Your task to perform on an android device: View the shopping cart on amazon. Add "beats solo 3" to the cart on amazon, then select checkout. Image 0: 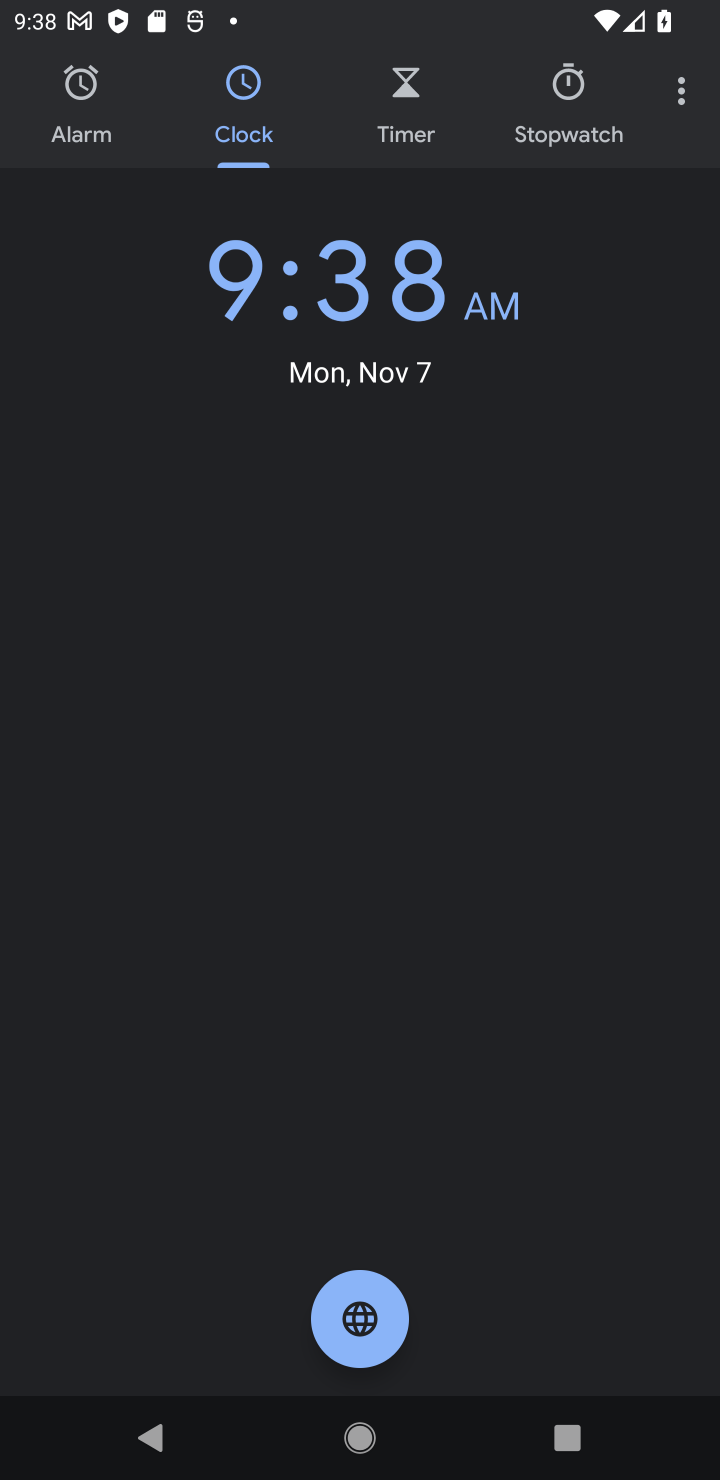
Step 0: press home button
Your task to perform on an android device: View the shopping cart on amazon. Add "beats solo 3" to the cart on amazon, then select checkout. Image 1: 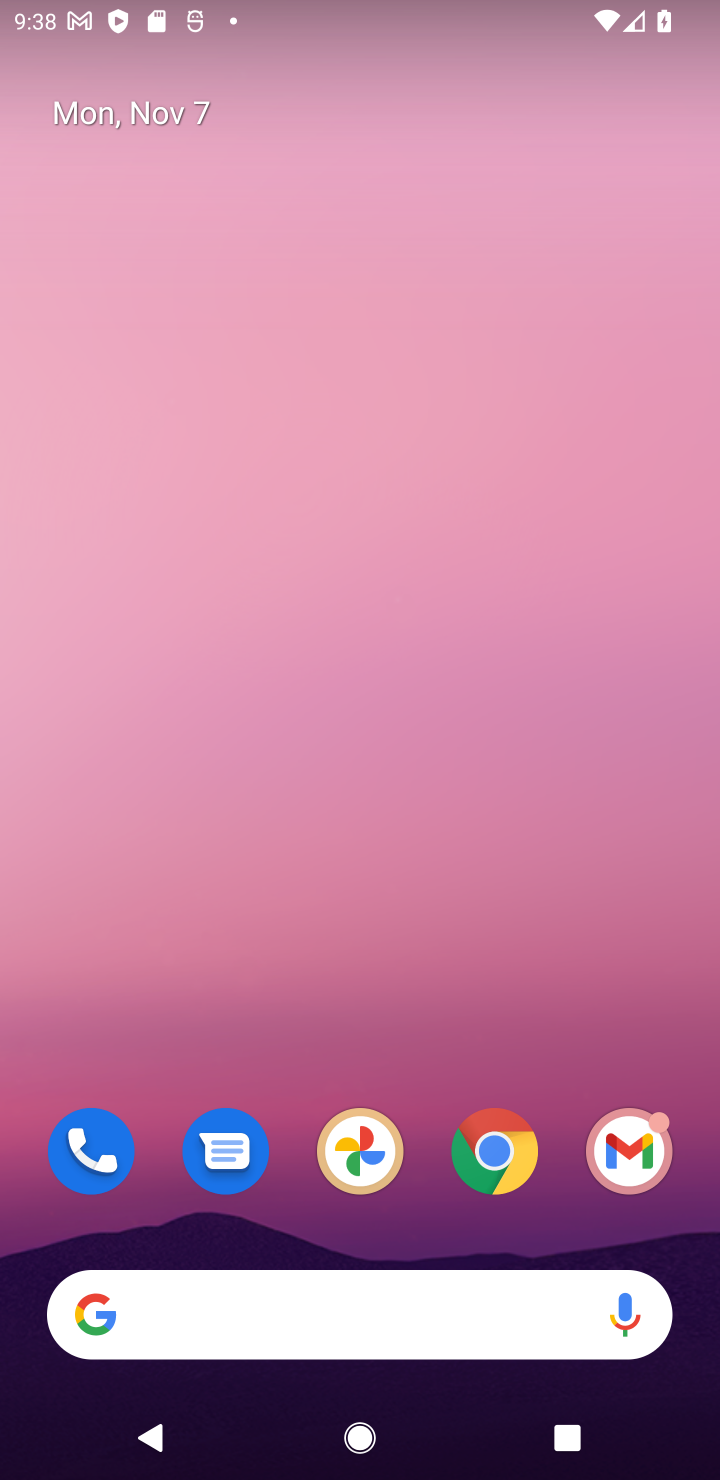
Step 1: click (492, 1151)
Your task to perform on an android device: View the shopping cart on amazon. Add "beats solo 3" to the cart on amazon, then select checkout. Image 2: 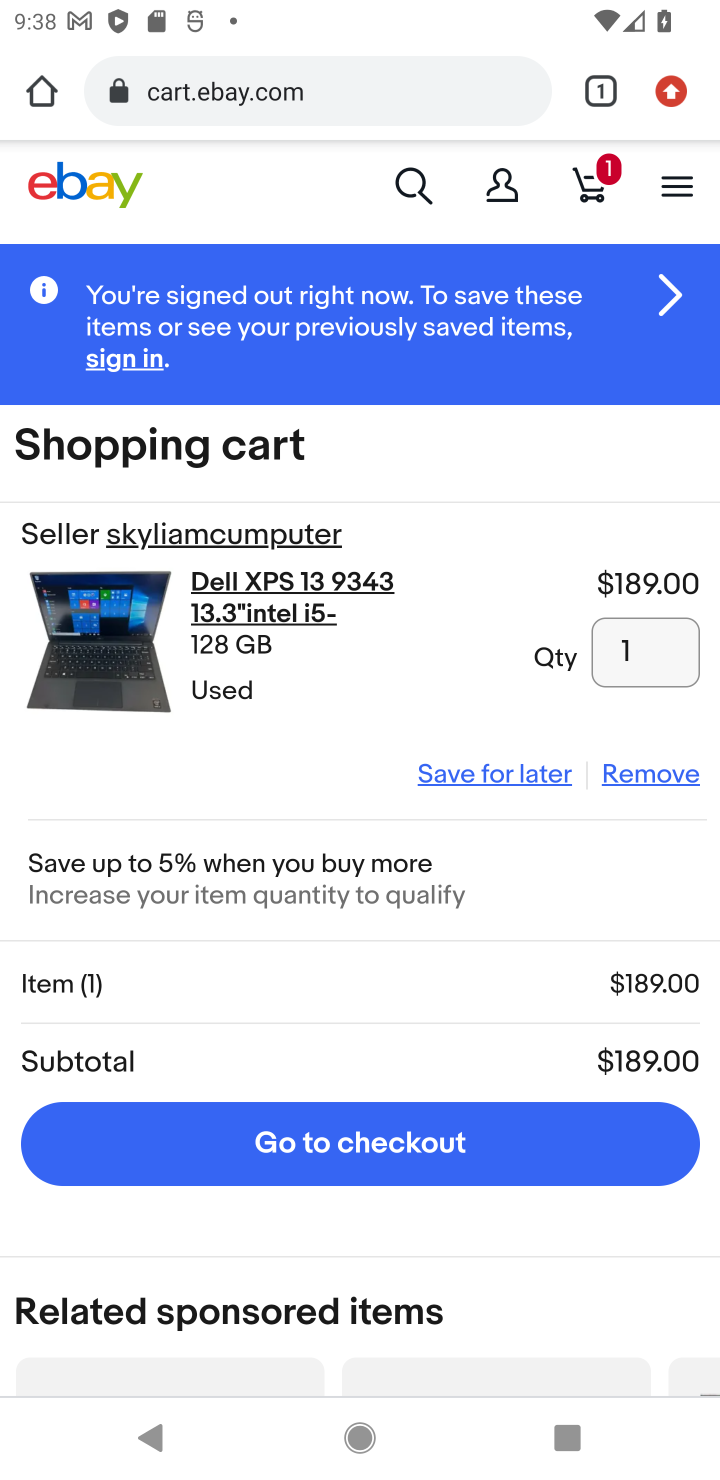
Step 2: click (337, 85)
Your task to perform on an android device: View the shopping cart on amazon. Add "beats solo 3" to the cart on amazon, then select checkout. Image 3: 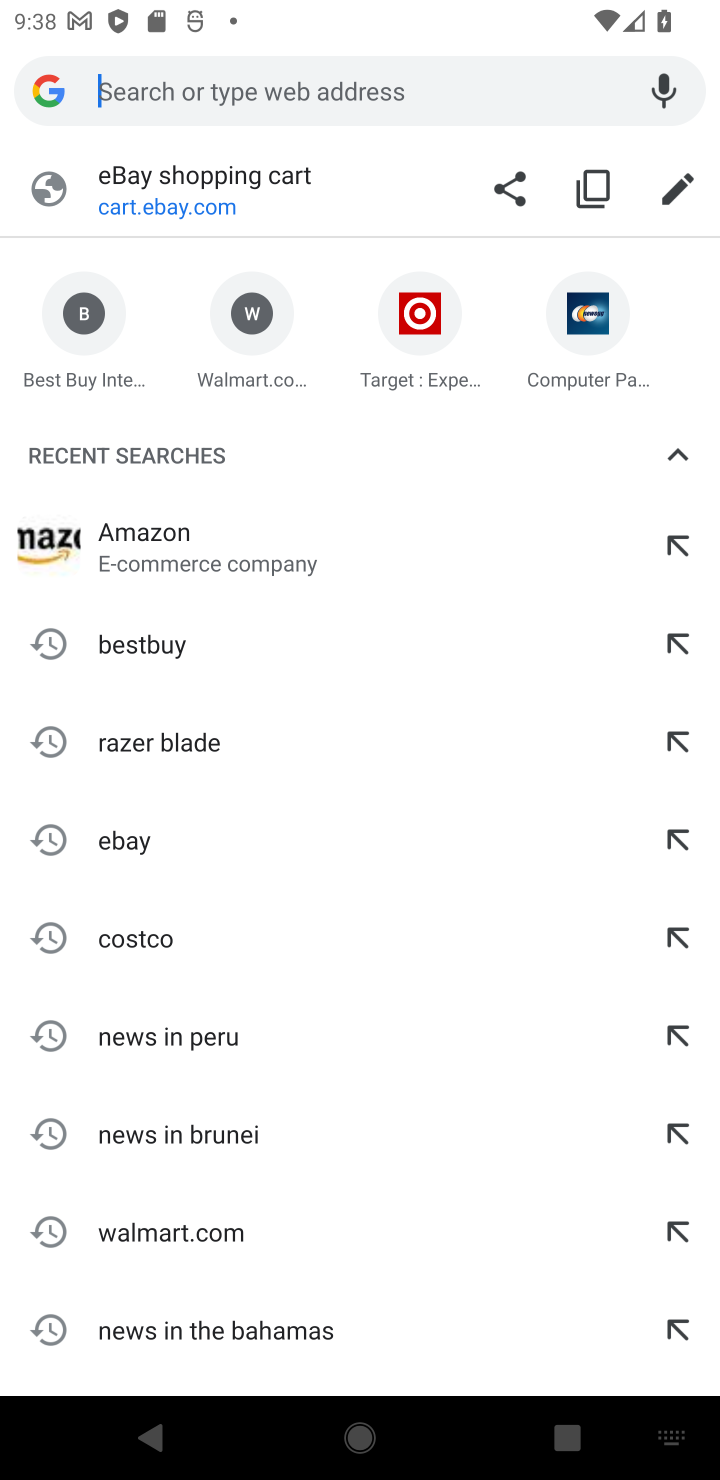
Step 3: click (167, 531)
Your task to perform on an android device: View the shopping cart on amazon. Add "beats solo 3" to the cart on amazon, then select checkout. Image 4: 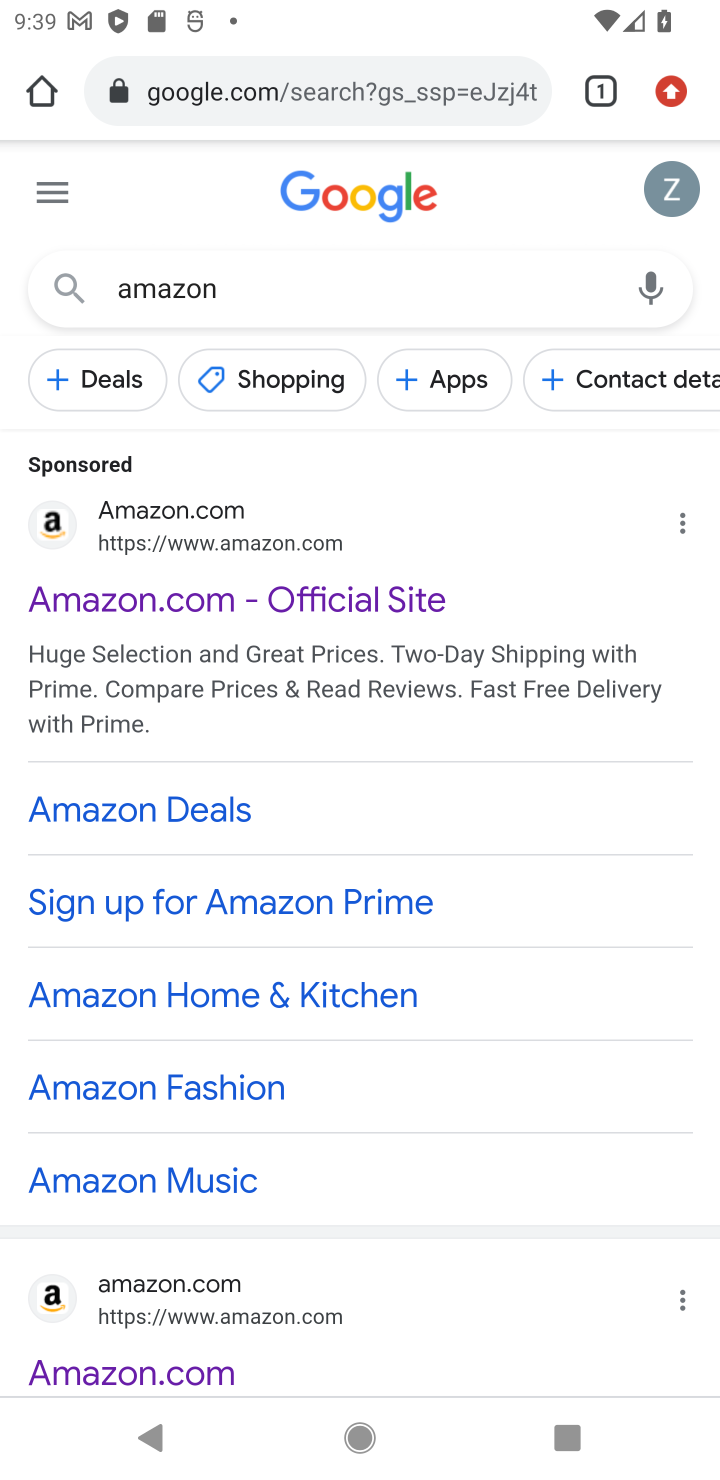
Step 4: click (167, 587)
Your task to perform on an android device: View the shopping cart on amazon. Add "beats solo 3" to the cart on amazon, then select checkout. Image 5: 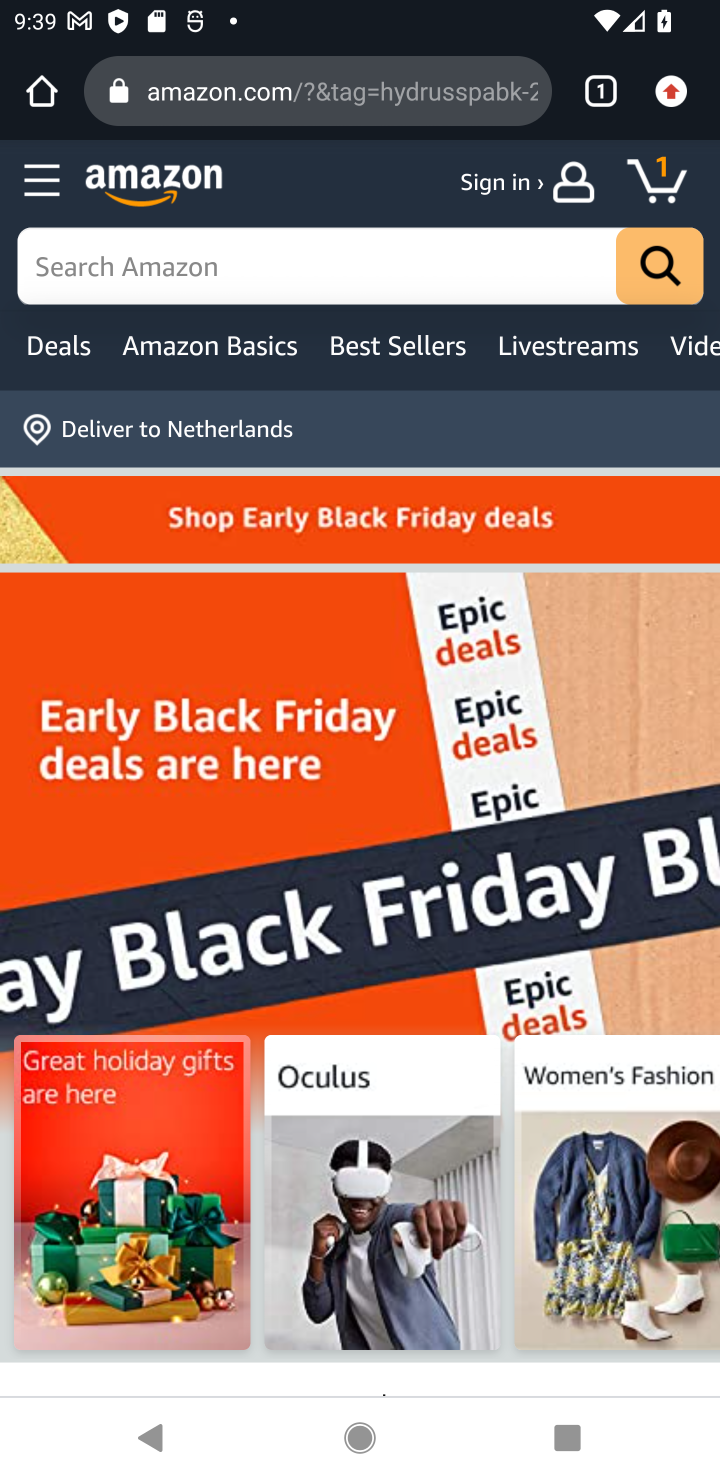
Step 5: click (122, 251)
Your task to perform on an android device: View the shopping cart on amazon. Add "beats solo 3" to the cart on amazon, then select checkout. Image 6: 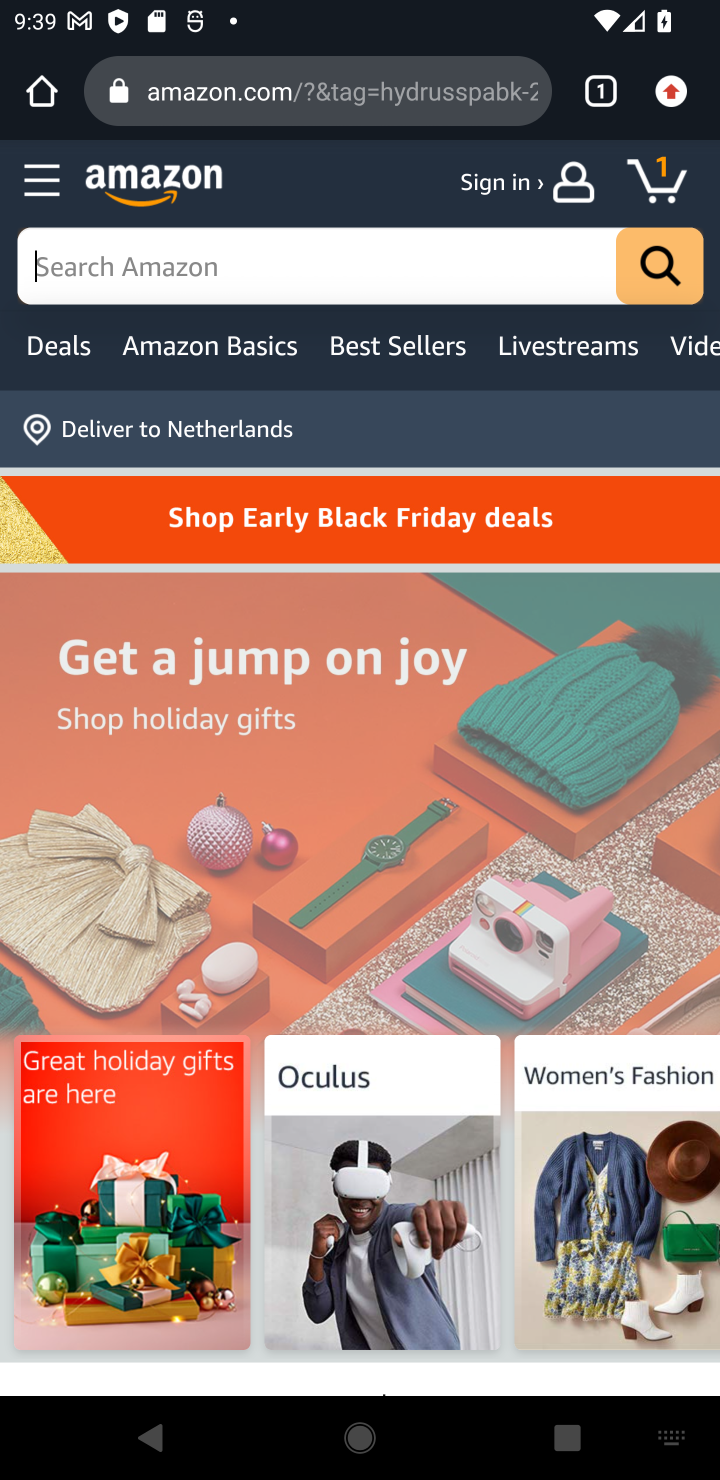
Step 6: click (103, 261)
Your task to perform on an android device: View the shopping cart on amazon. Add "beats solo 3" to the cart on amazon, then select checkout. Image 7: 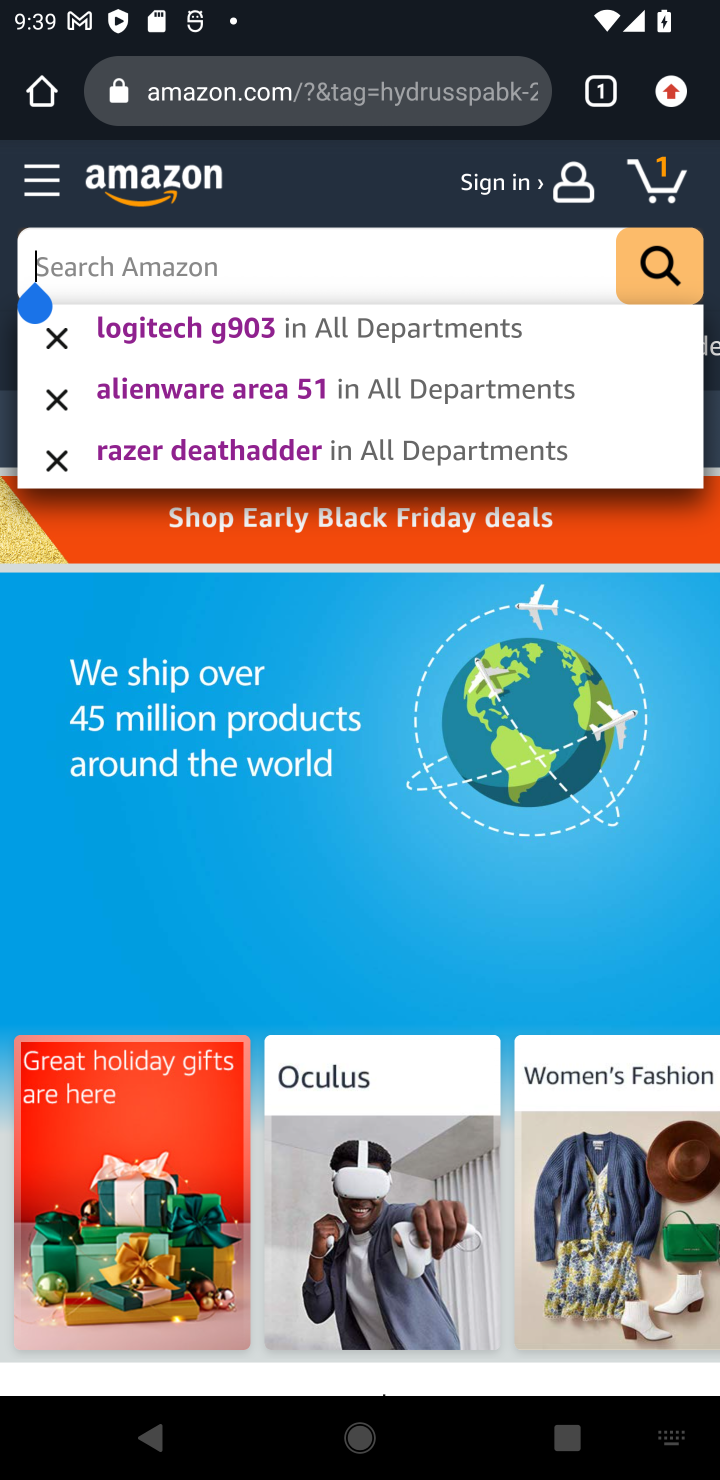
Step 7: type "beats solo 3"
Your task to perform on an android device: View the shopping cart on amazon. Add "beats solo 3" to the cart on amazon, then select checkout. Image 8: 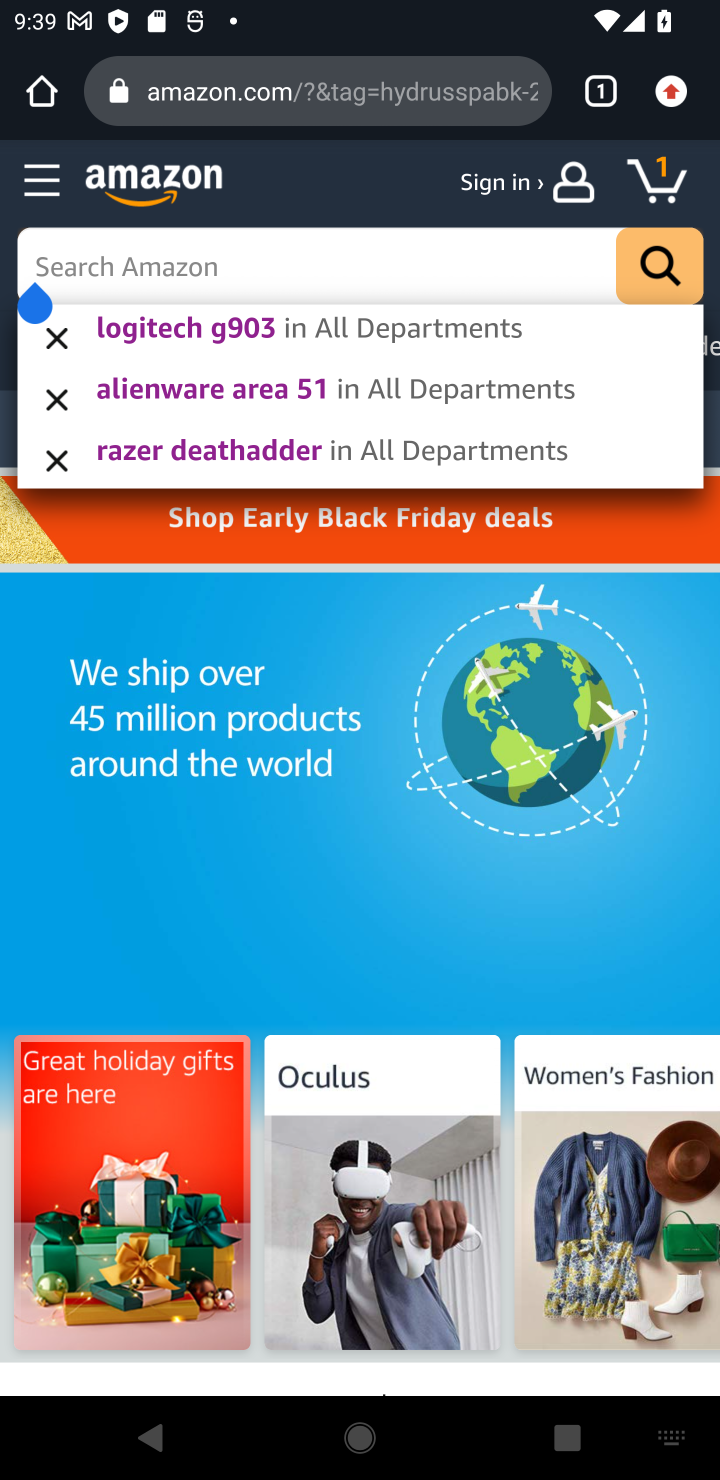
Step 8: press enter
Your task to perform on an android device: View the shopping cart on amazon. Add "beats solo 3" to the cart on amazon, then select checkout. Image 9: 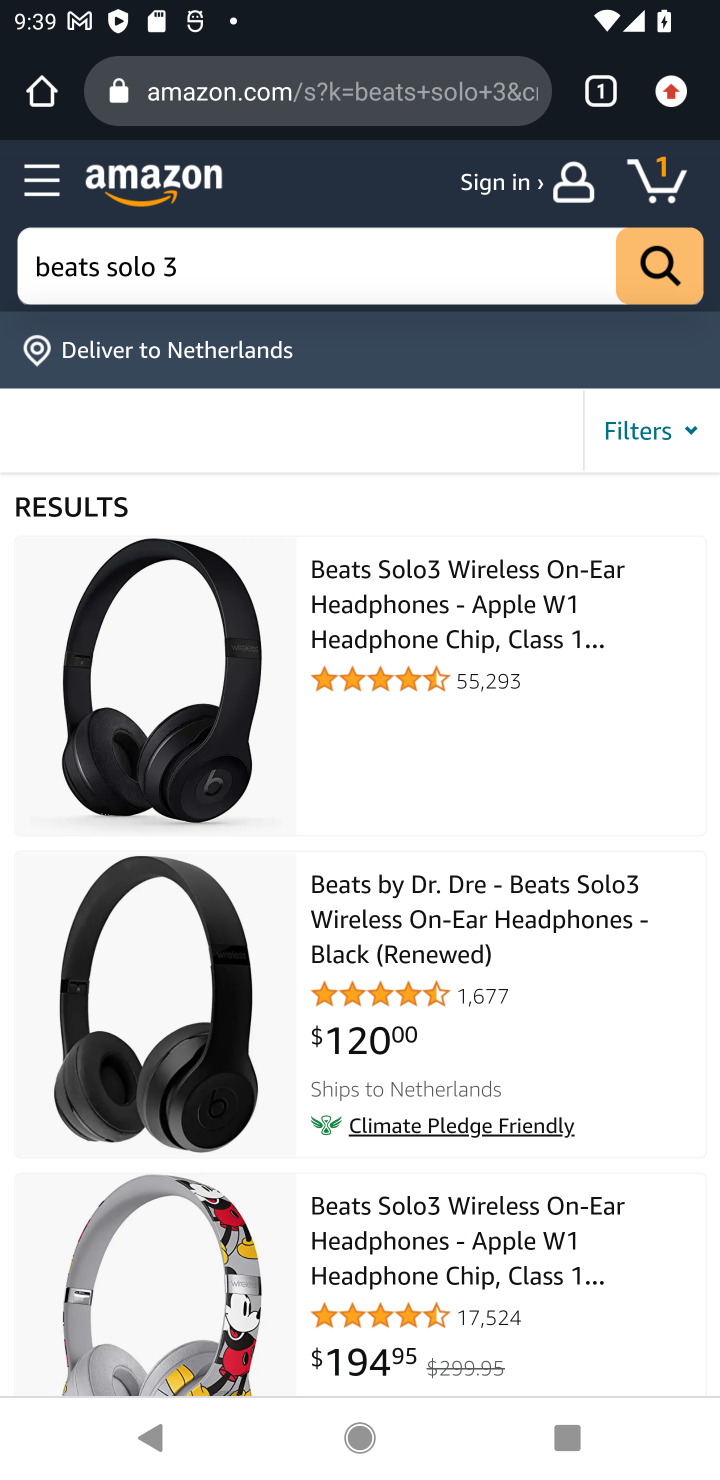
Step 9: click (459, 600)
Your task to perform on an android device: View the shopping cart on amazon. Add "beats solo 3" to the cart on amazon, then select checkout. Image 10: 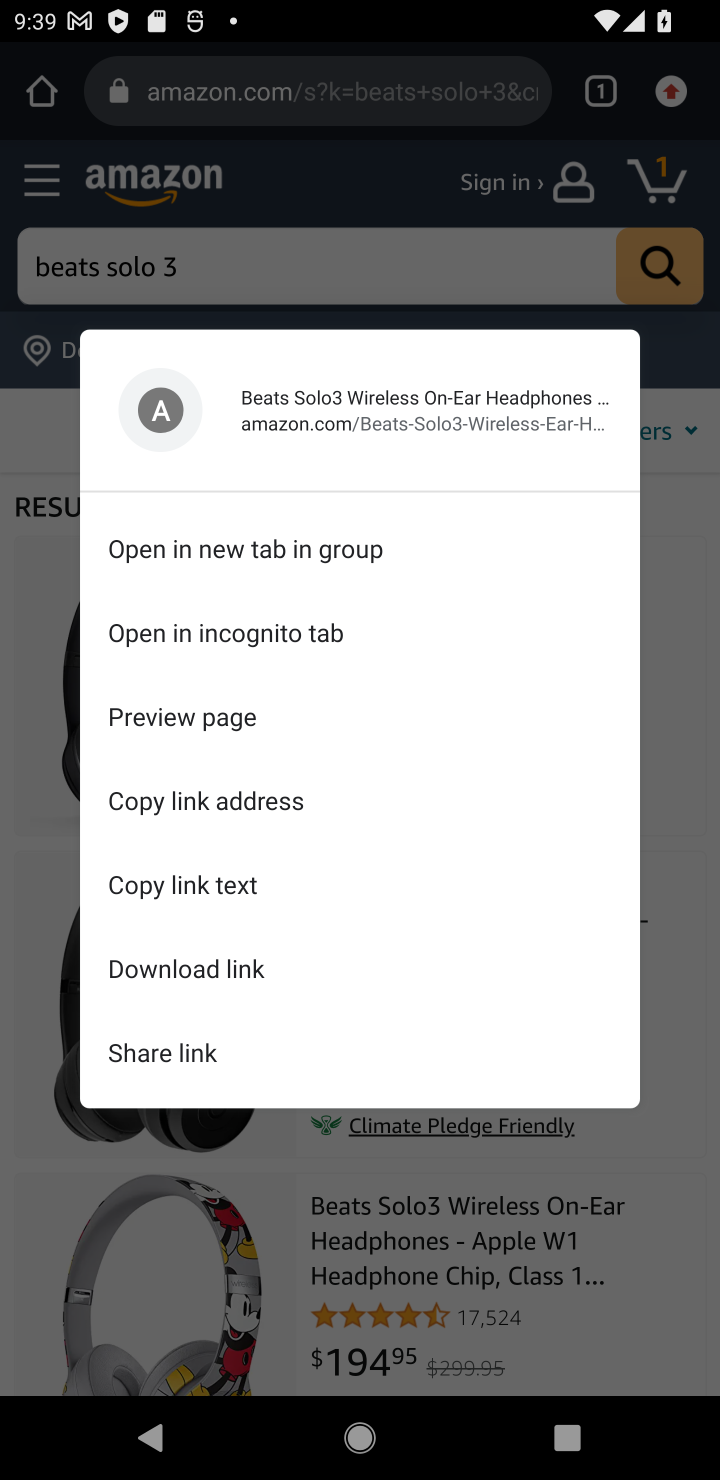
Step 10: click (692, 723)
Your task to perform on an android device: View the shopping cart on amazon. Add "beats solo 3" to the cart on amazon, then select checkout. Image 11: 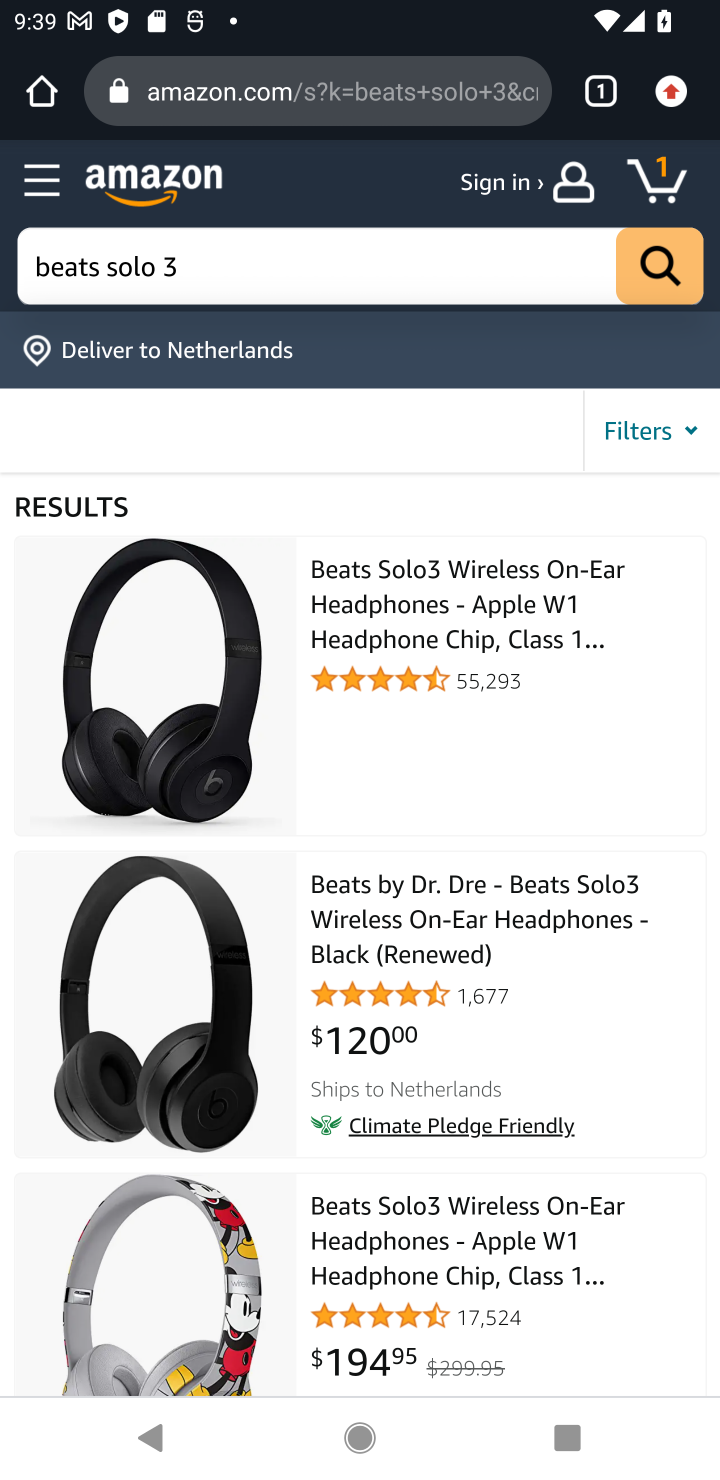
Step 11: click (413, 916)
Your task to perform on an android device: View the shopping cart on amazon. Add "beats solo 3" to the cart on amazon, then select checkout. Image 12: 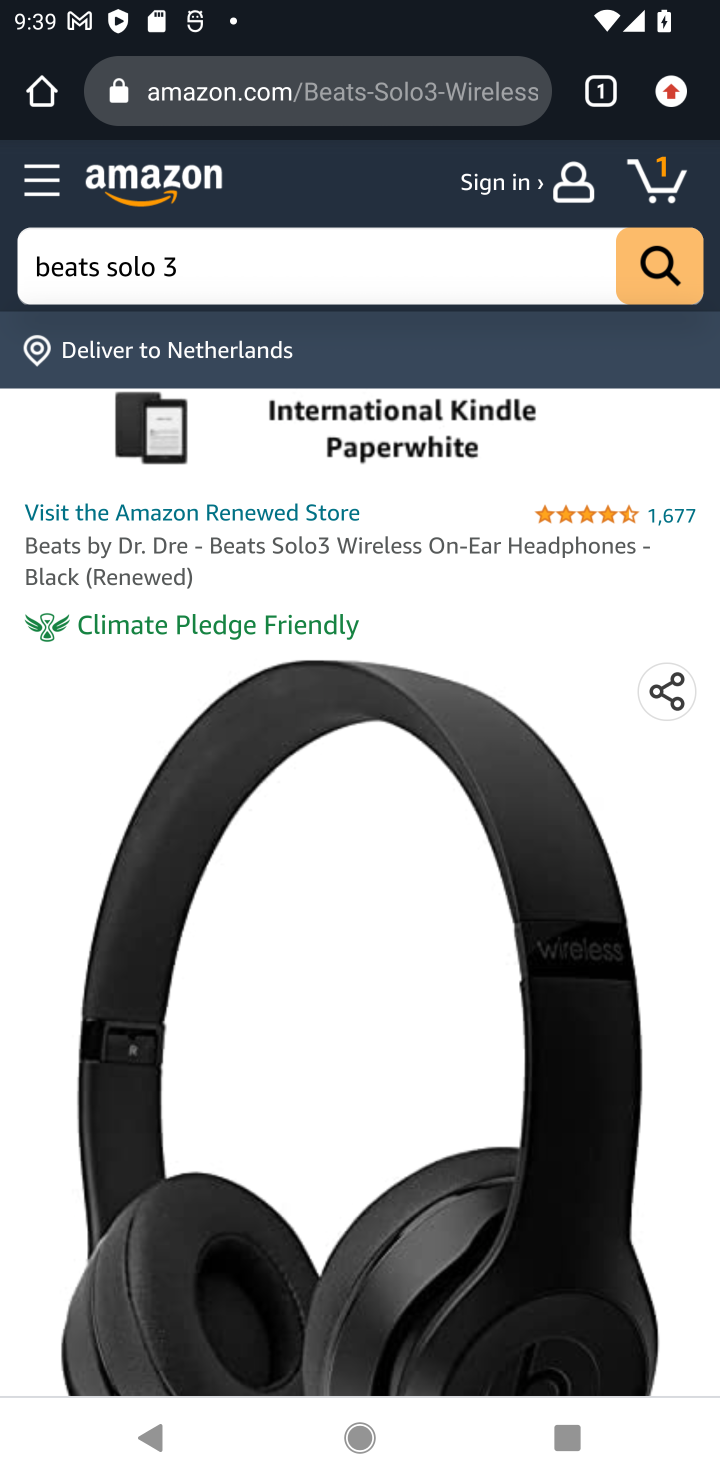
Step 12: drag from (339, 1206) to (715, 270)
Your task to perform on an android device: View the shopping cart on amazon. Add "beats solo 3" to the cart on amazon, then select checkout. Image 13: 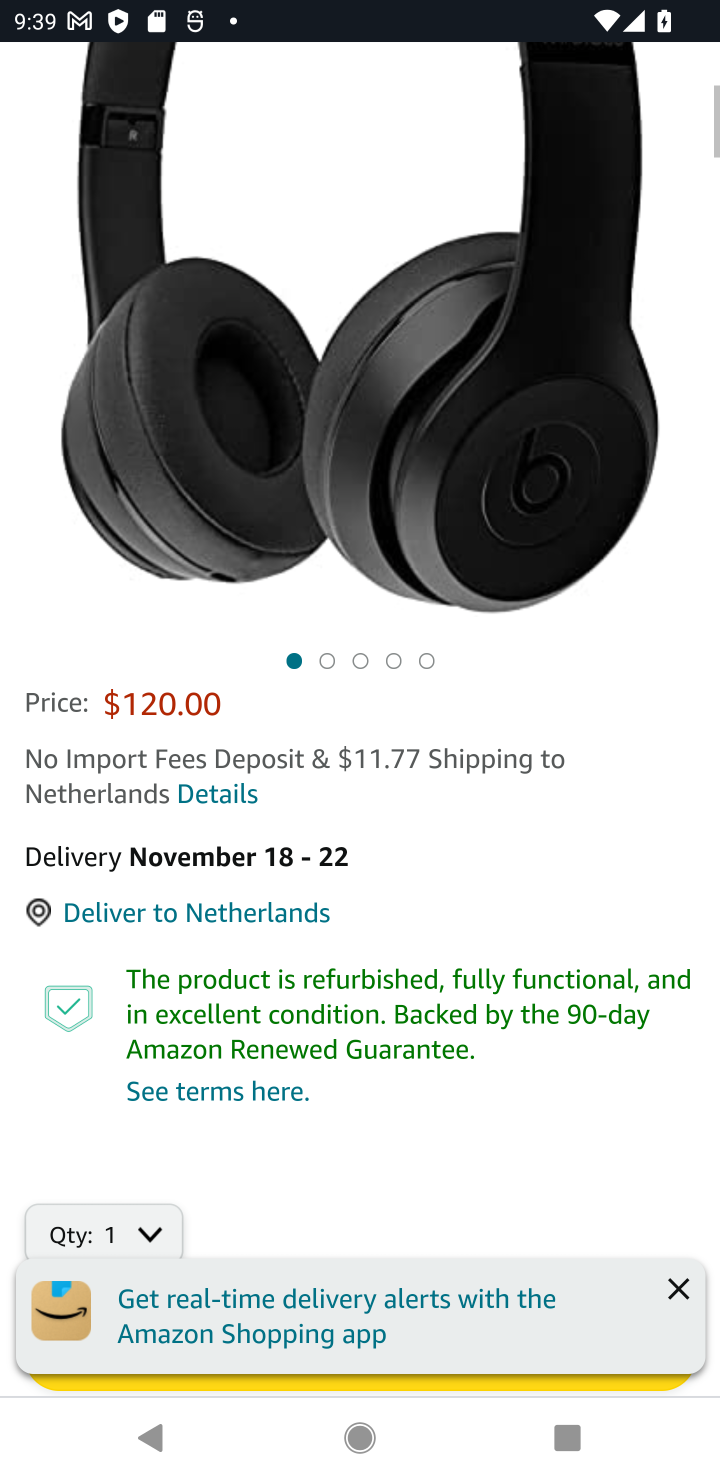
Step 13: drag from (356, 1095) to (585, 33)
Your task to perform on an android device: View the shopping cart on amazon. Add "beats solo 3" to the cart on amazon, then select checkout. Image 14: 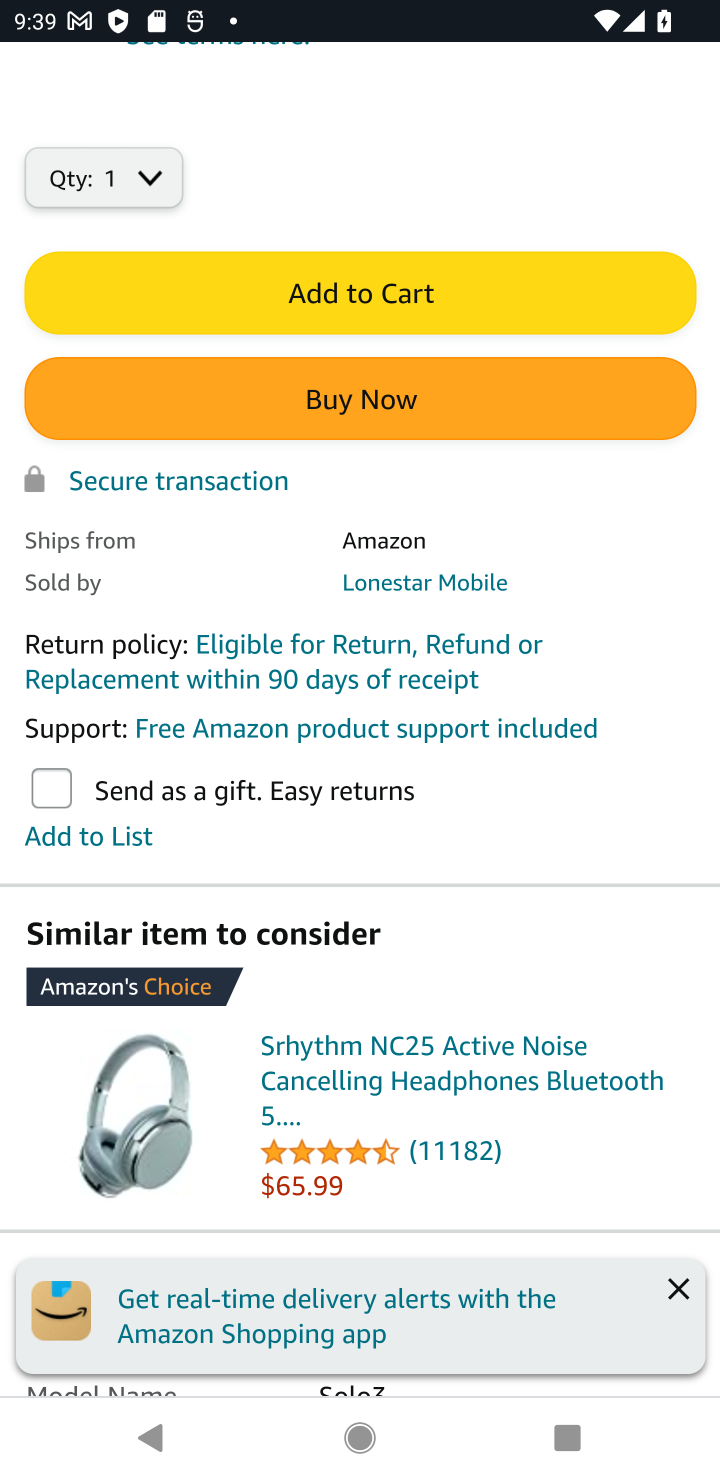
Step 14: click (390, 276)
Your task to perform on an android device: View the shopping cart on amazon. Add "beats solo 3" to the cart on amazon, then select checkout. Image 15: 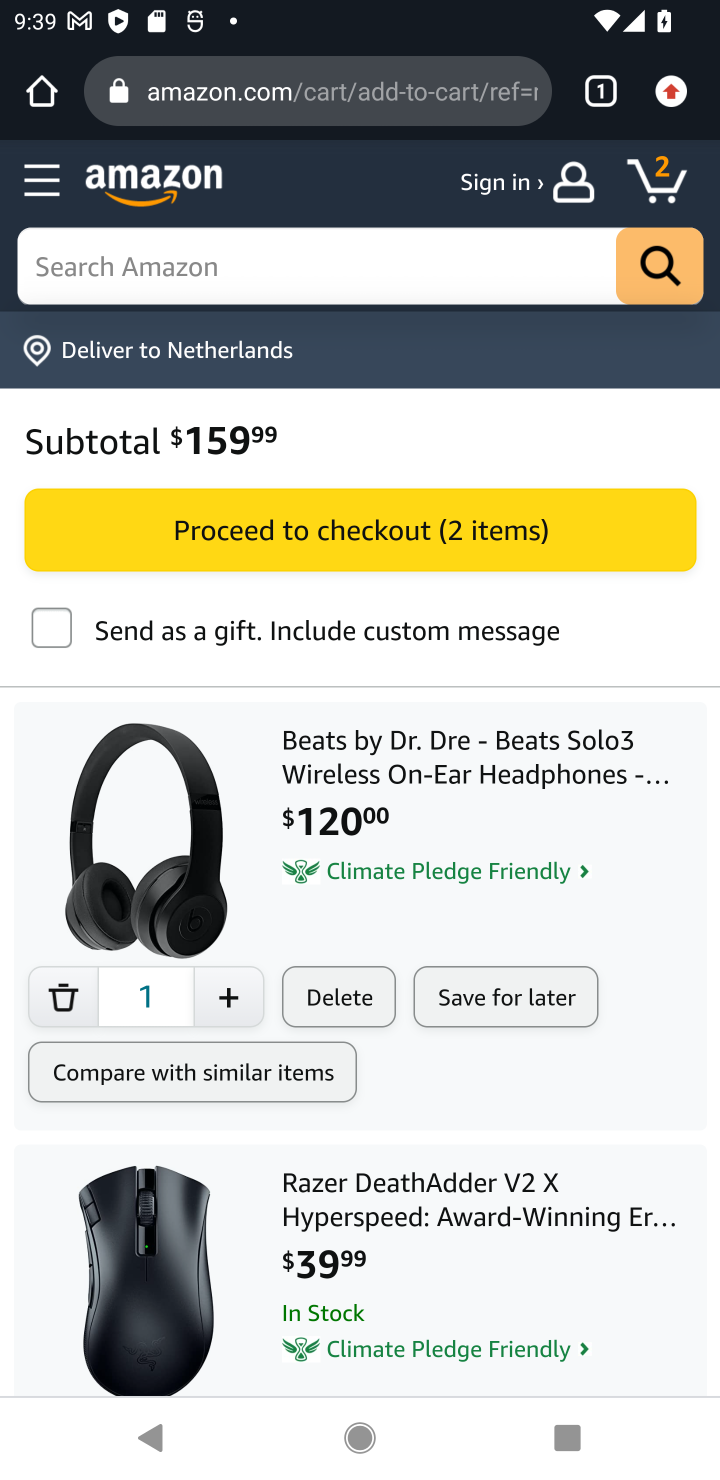
Step 15: drag from (440, 722) to (559, 401)
Your task to perform on an android device: View the shopping cart on amazon. Add "beats solo 3" to the cart on amazon, then select checkout. Image 16: 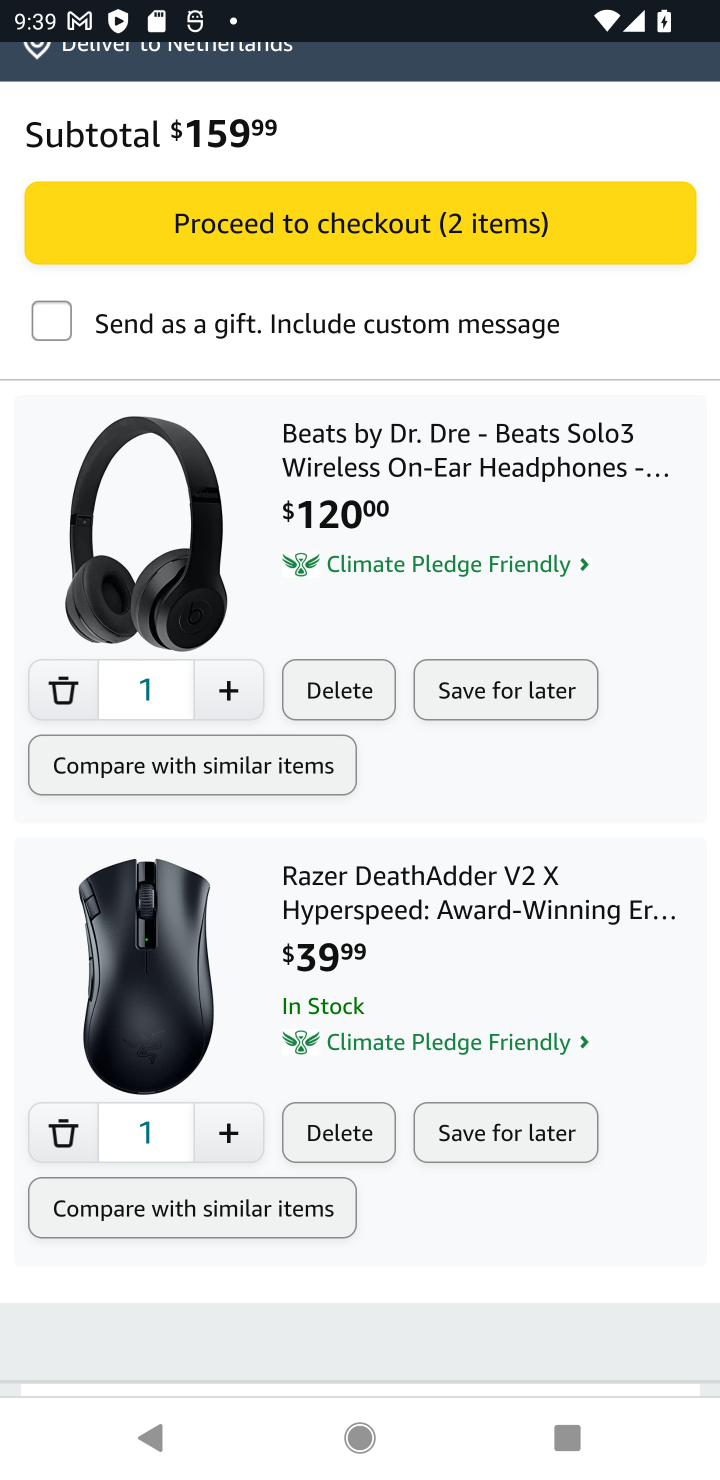
Step 16: click (365, 1146)
Your task to perform on an android device: View the shopping cart on amazon. Add "beats solo 3" to the cart on amazon, then select checkout. Image 17: 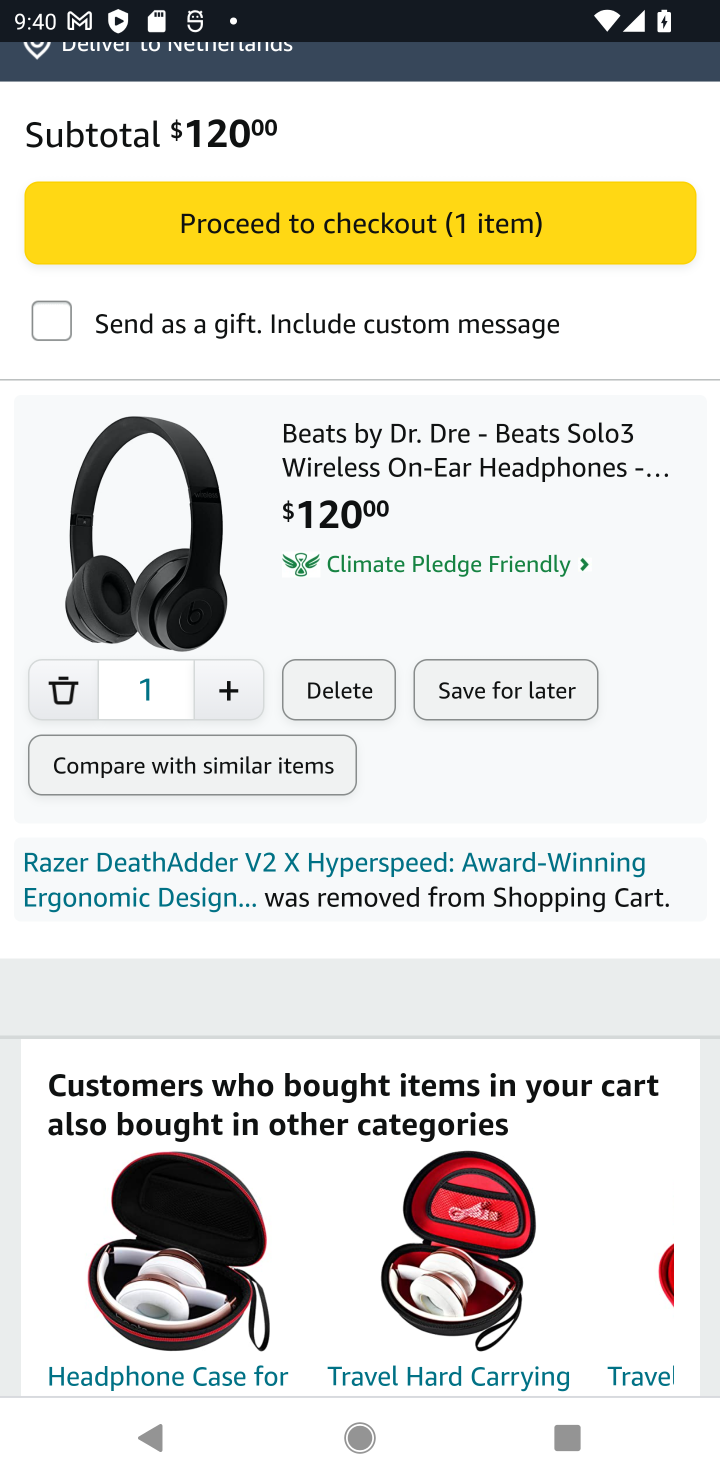
Step 17: click (451, 215)
Your task to perform on an android device: View the shopping cart on amazon. Add "beats solo 3" to the cart on amazon, then select checkout. Image 18: 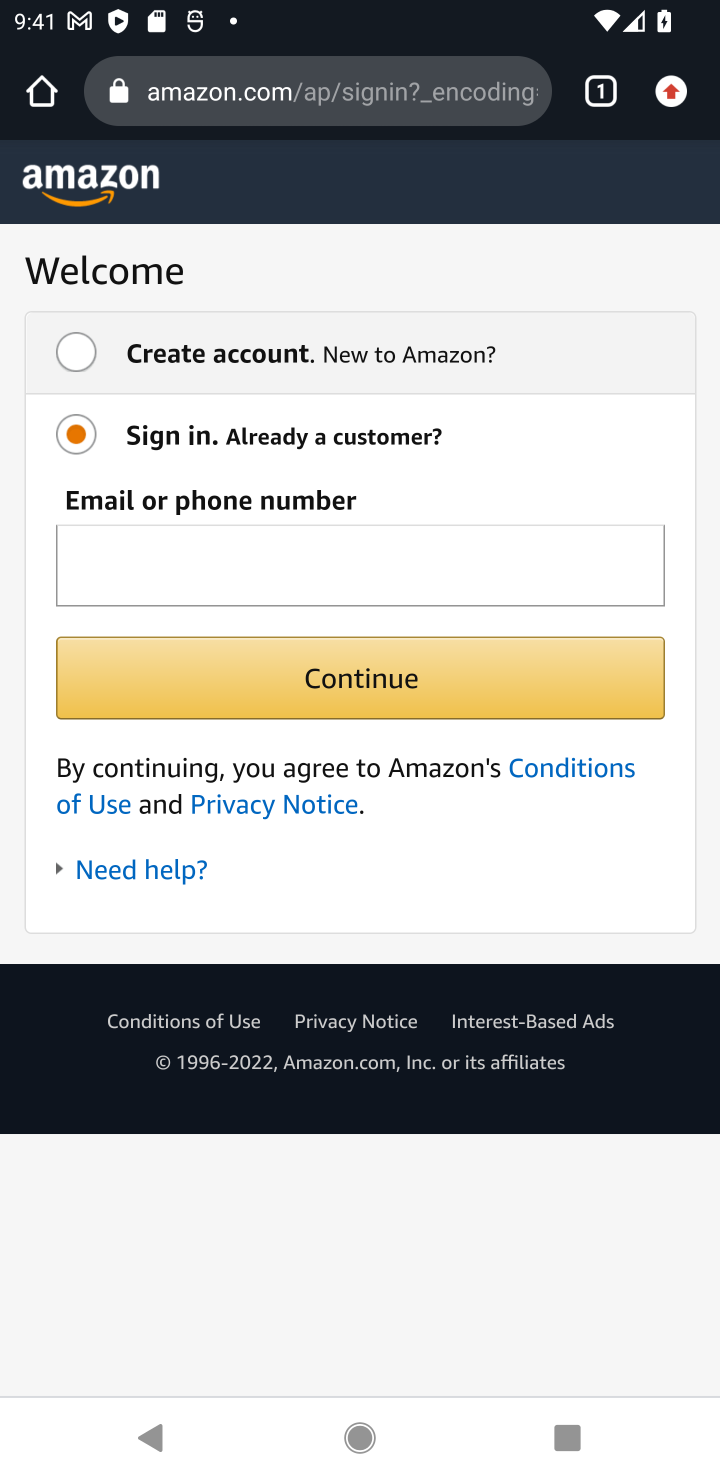
Step 18: task complete